Your task to perform on an android device: toggle location history Image 0: 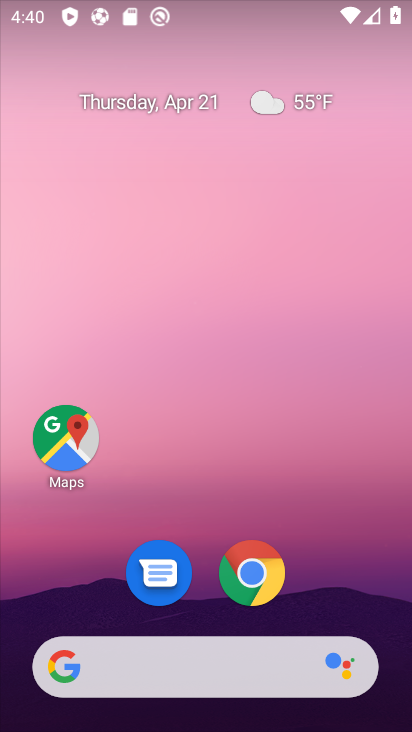
Step 0: drag from (375, 541) to (313, 253)
Your task to perform on an android device: toggle location history Image 1: 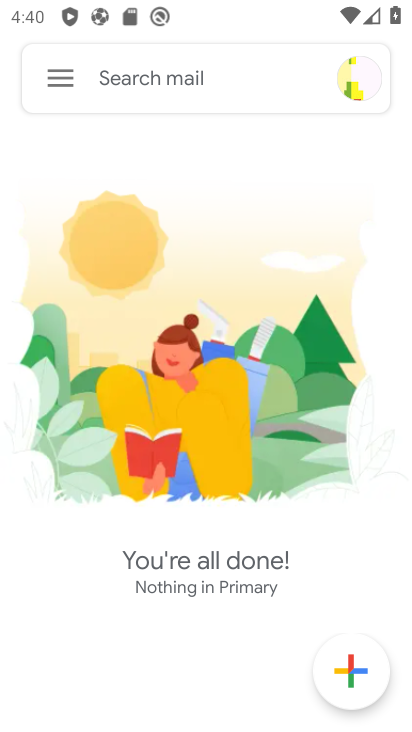
Step 1: press home button
Your task to perform on an android device: toggle location history Image 2: 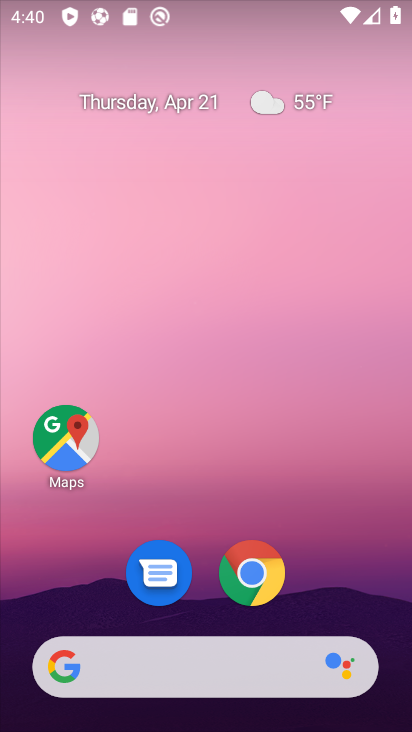
Step 2: click (61, 455)
Your task to perform on an android device: toggle location history Image 3: 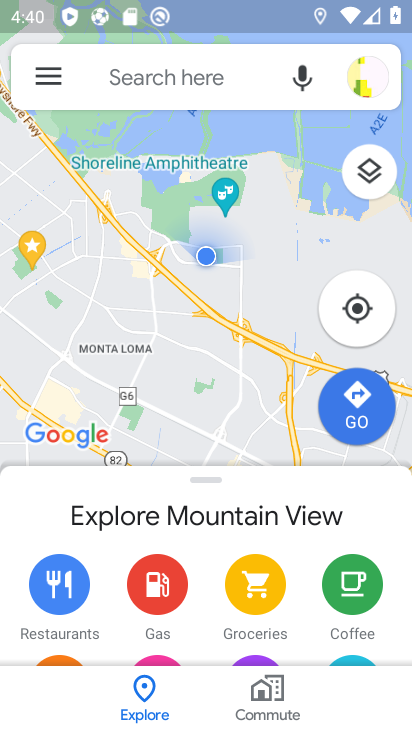
Step 3: click (50, 95)
Your task to perform on an android device: toggle location history Image 4: 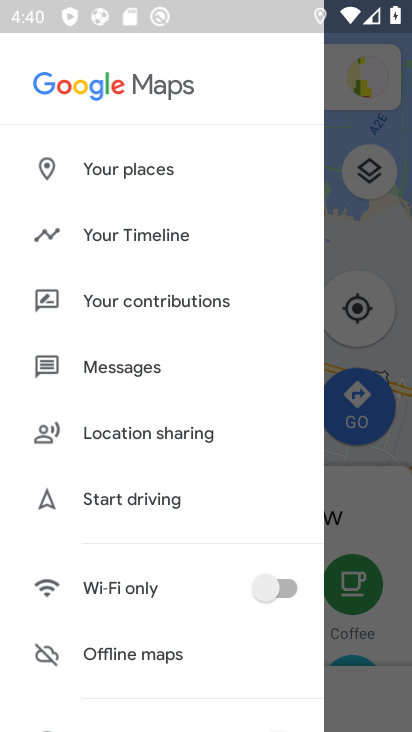
Step 4: click (191, 240)
Your task to perform on an android device: toggle location history Image 5: 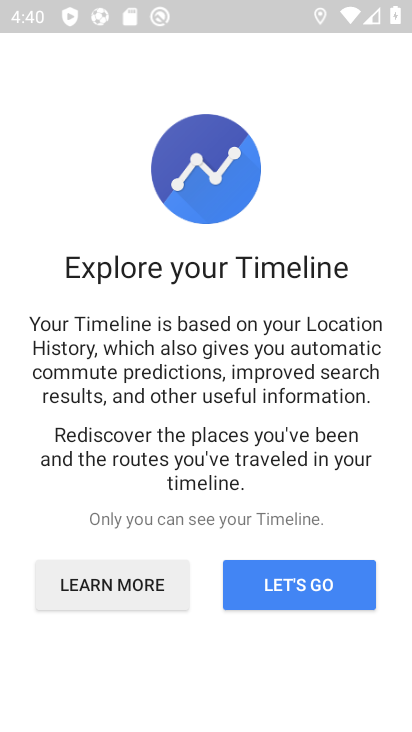
Step 5: click (328, 589)
Your task to perform on an android device: toggle location history Image 6: 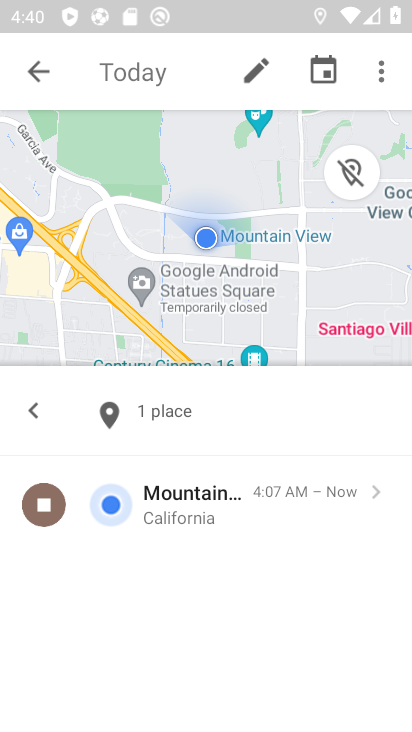
Step 6: click (377, 89)
Your task to perform on an android device: toggle location history Image 7: 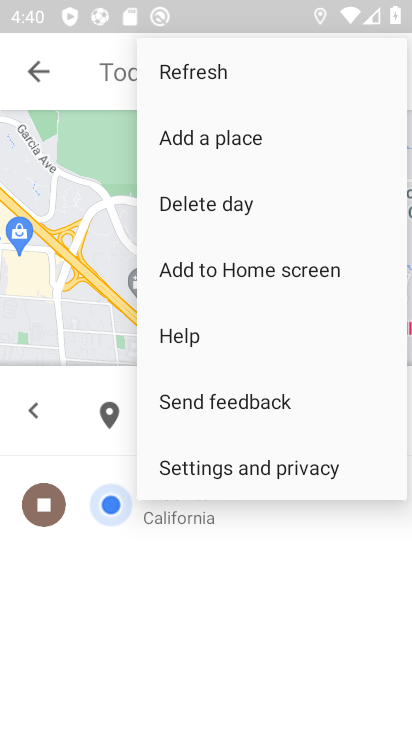
Step 7: click (330, 469)
Your task to perform on an android device: toggle location history Image 8: 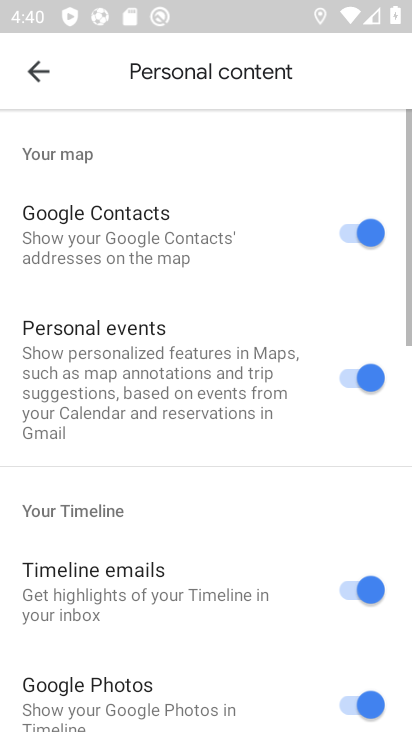
Step 8: drag from (305, 517) to (194, 182)
Your task to perform on an android device: toggle location history Image 9: 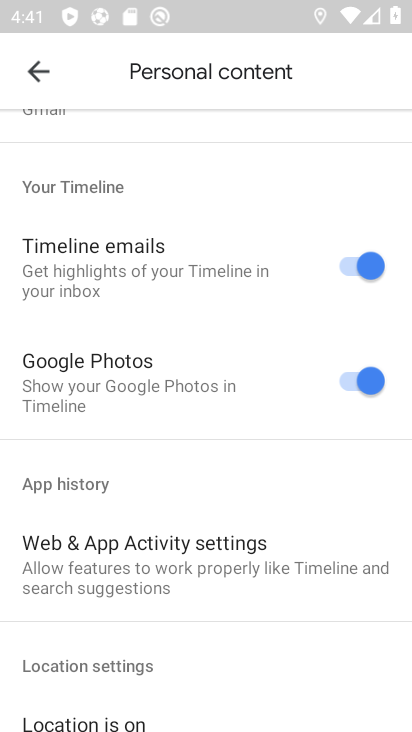
Step 9: drag from (248, 446) to (157, 126)
Your task to perform on an android device: toggle location history Image 10: 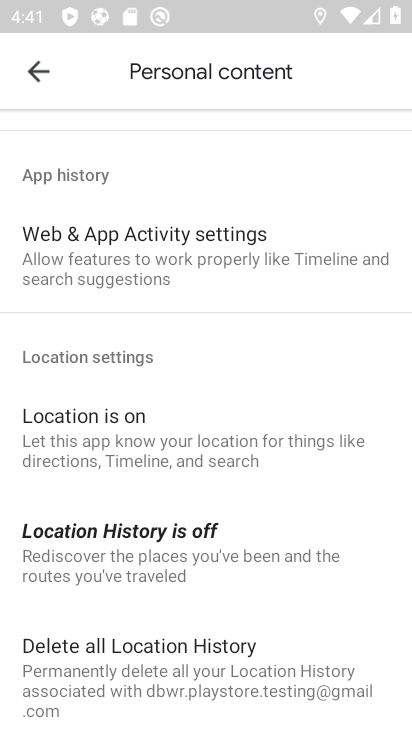
Step 10: click (193, 564)
Your task to perform on an android device: toggle location history Image 11: 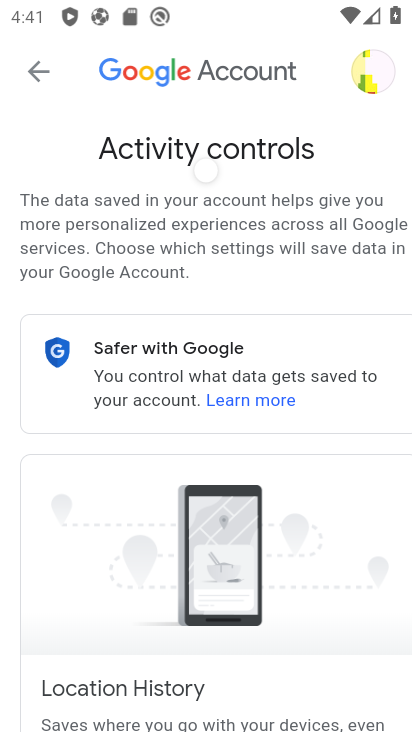
Step 11: drag from (193, 564) to (156, 276)
Your task to perform on an android device: toggle location history Image 12: 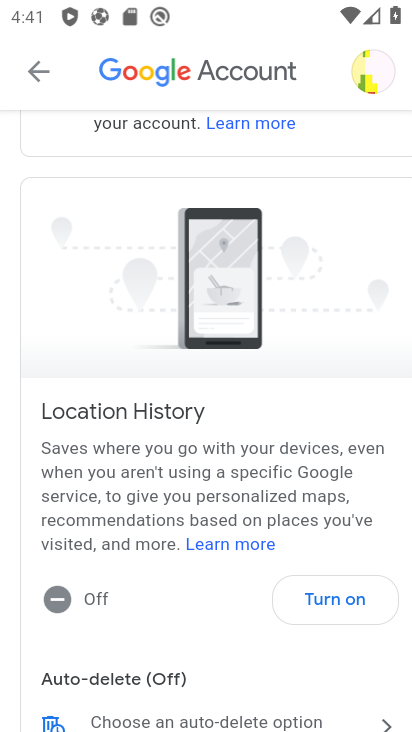
Step 12: click (343, 604)
Your task to perform on an android device: toggle location history Image 13: 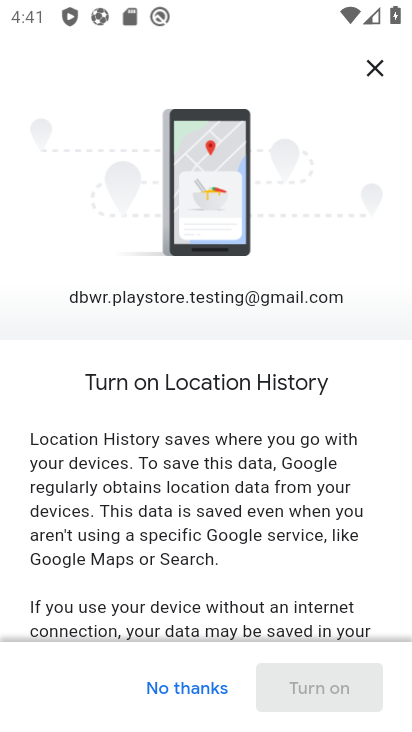
Step 13: drag from (286, 600) to (220, 97)
Your task to perform on an android device: toggle location history Image 14: 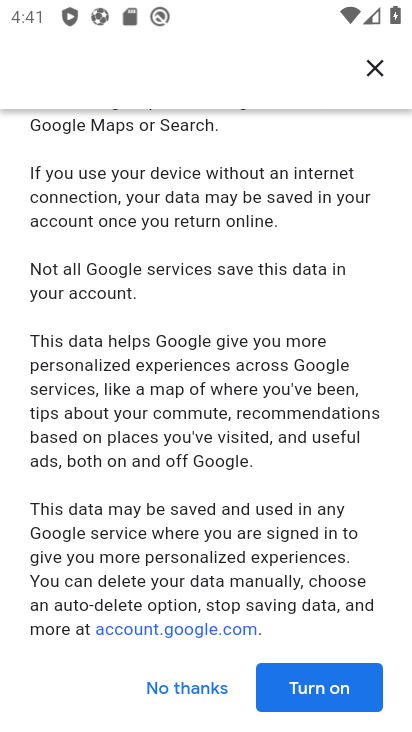
Step 14: click (319, 684)
Your task to perform on an android device: toggle location history Image 15: 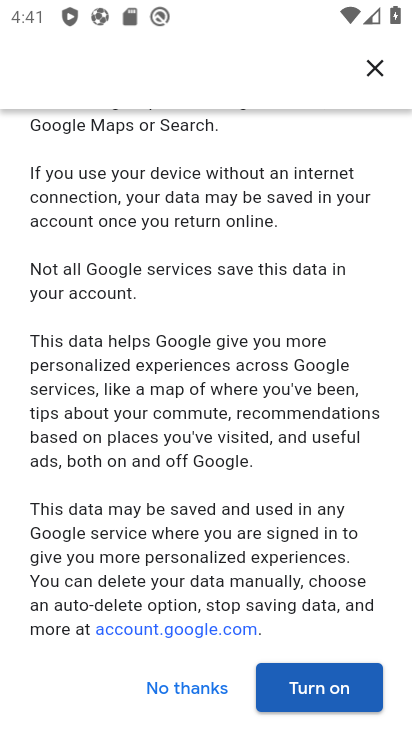
Step 15: click (319, 684)
Your task to perform on an android device: toggle location history Image 16: 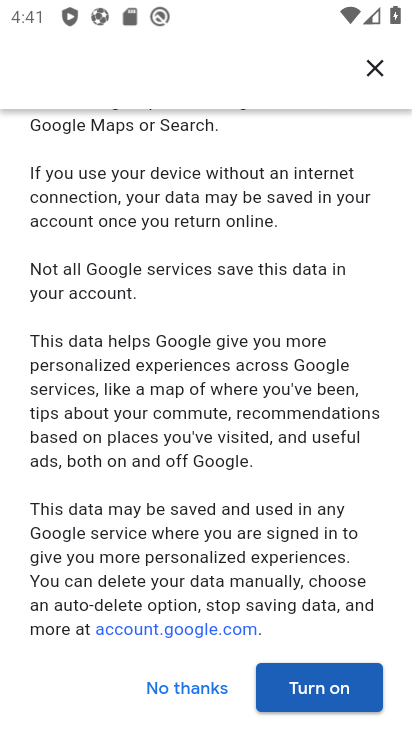
Step 16: click (319, 684)
Your task to perform on an android device: toggle location history Image 17: 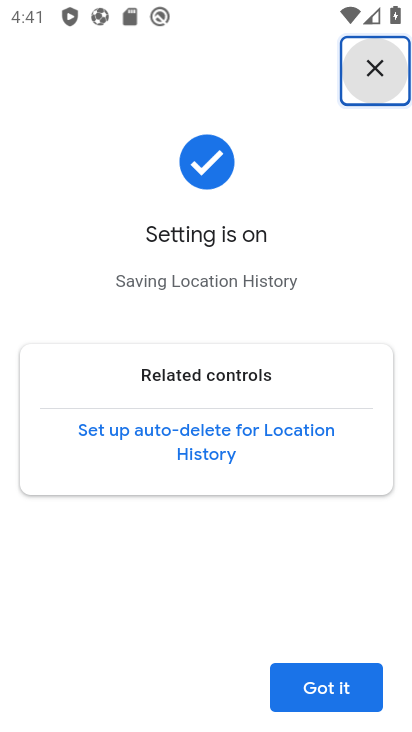
Step 17: click (319, 684)
Your task to perform on an android device: toggle location history Image 18: 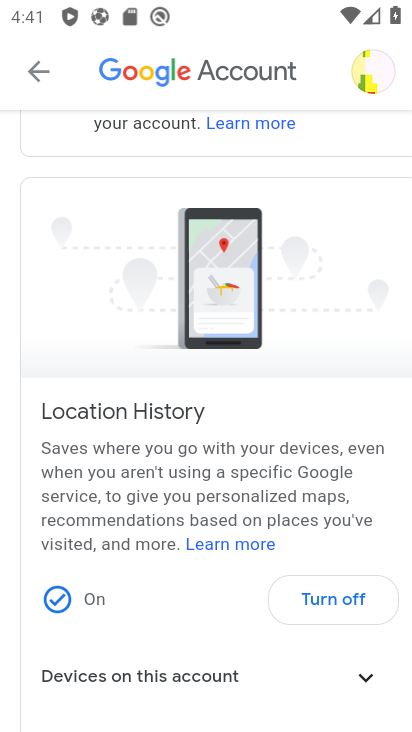
Step 18: task complete